Your task to perform on an android device: open app "Expedia: Hotels, Flights & Car" (install if not already installed) Image 0: 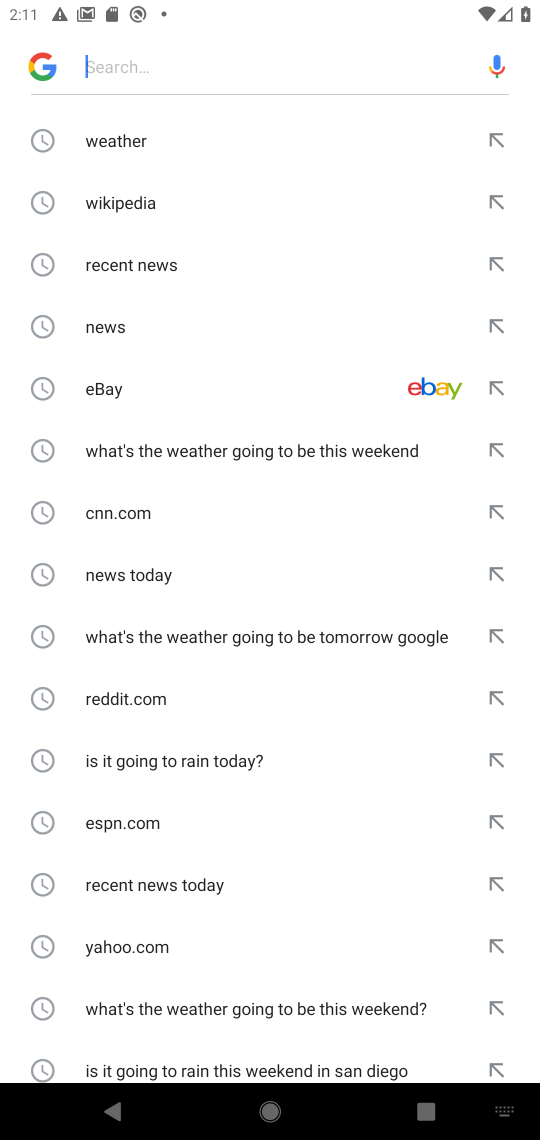
Step 0: press home button
Your task to perform on an android device: open app "Expedia: Hotels, Flights & Car" (install if not already installed) Image 1: 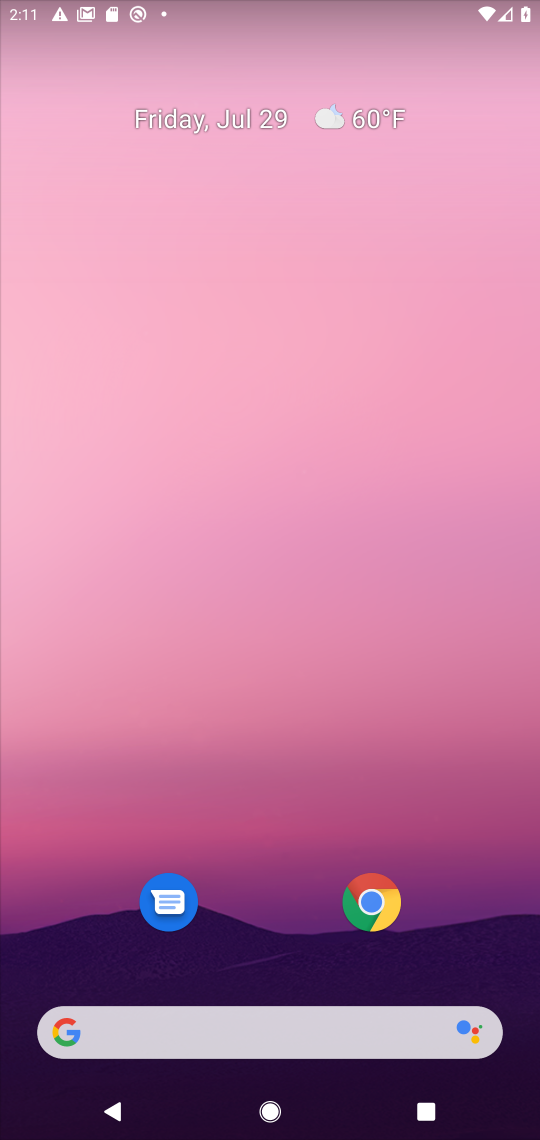
Step 1: drag from (318, 975) to (315, 386)
Your task to perform on an android device: open app "Expedia: Hotels, Flights & Car" (install if not already installed) Image 2: 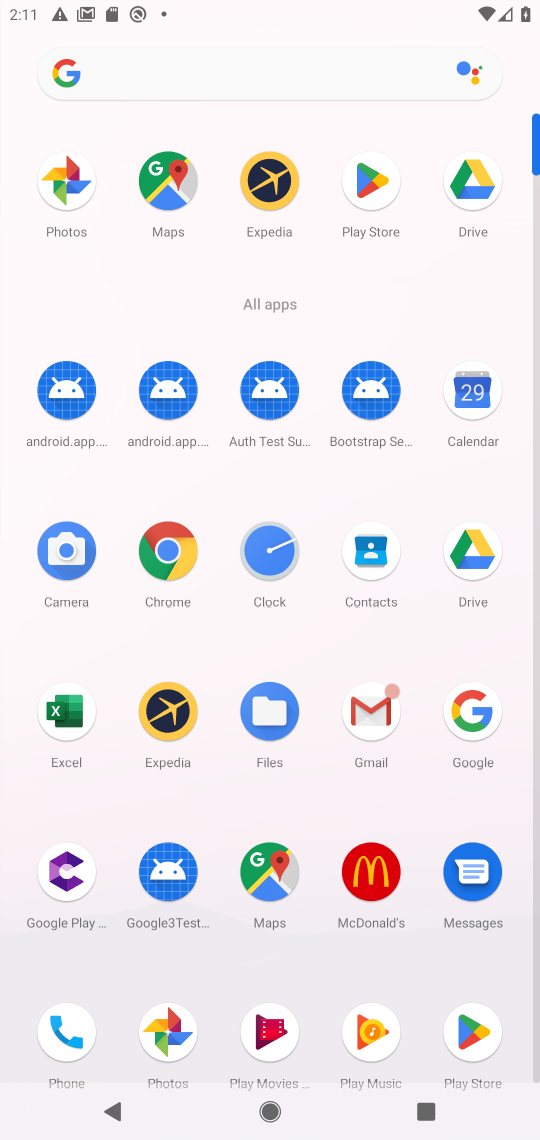
Step 2: click (165, 719)
Your task to perform on an android device: open app "Expedia: Hotels, Flights & Car" (install if not already installed) Image 3: 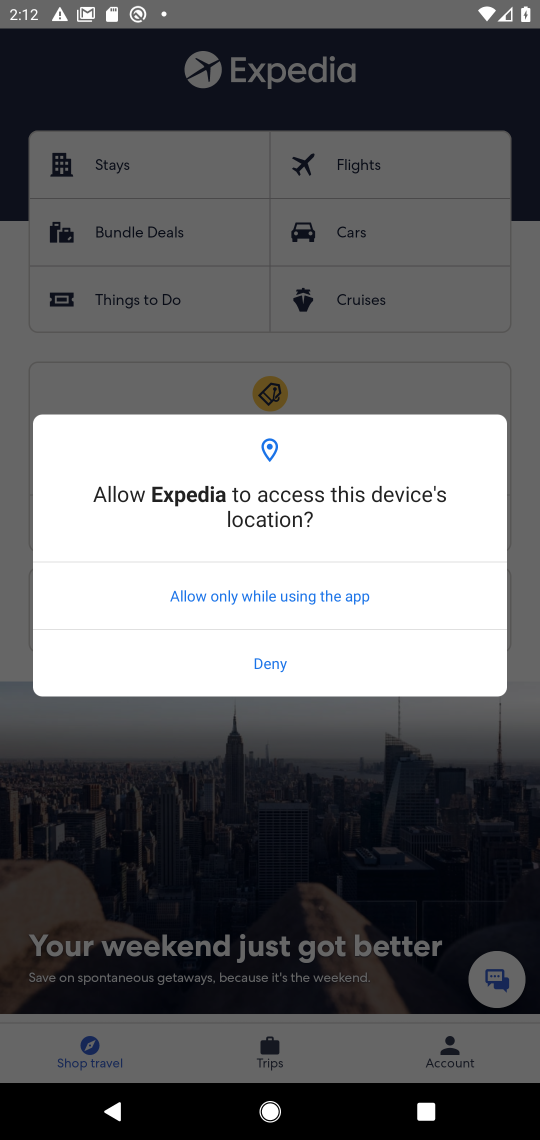
Step 3: task complete